Your task to perform on an android device: open a bookmark in the chrome app Image 0: 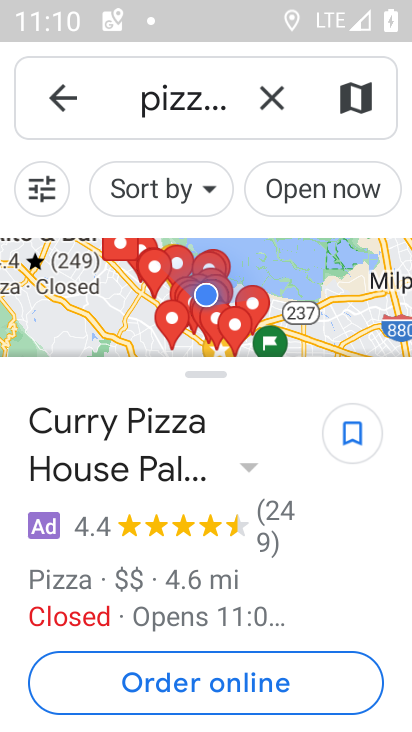
Step 0: press home button
Your task to perform on an android device: open a bookmark in the chrome app Image 1: 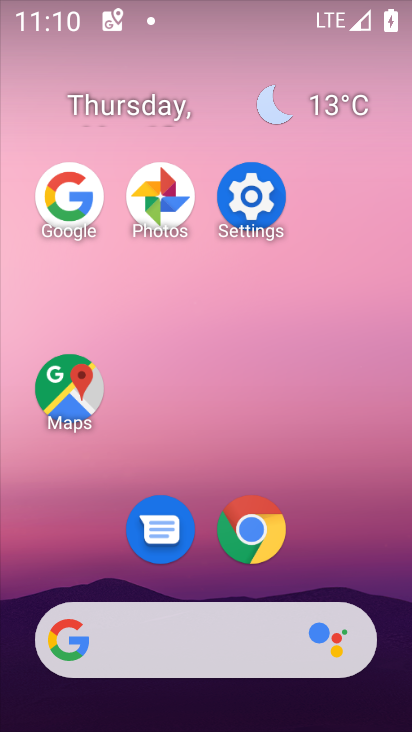
Step 1: click (244, 515)
Your task to perform on an android device: open a bookmark in the chrome app Image 2: 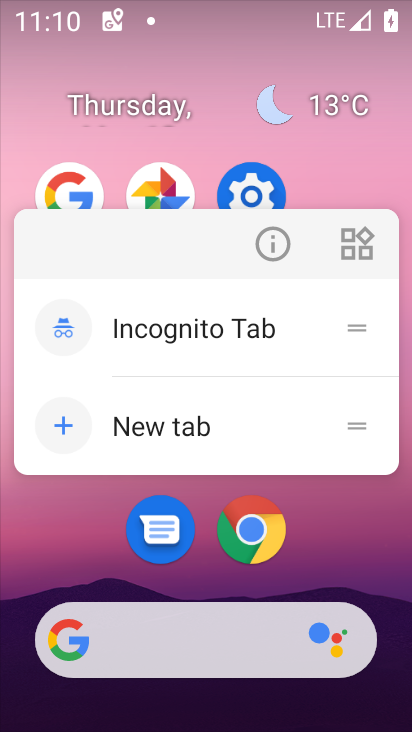
Step 2: click (254, 536)
Your task to perform on an android device: open a bookmark in the chrome app Image 3: 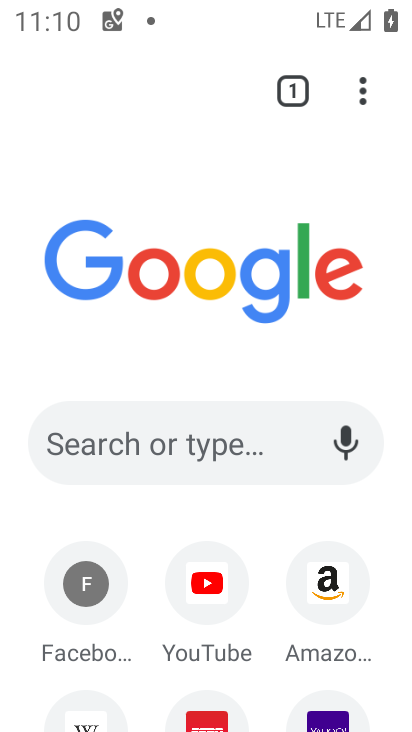
Step 3: click (371, 76)
Your task to perform on an android device: open a bookmark in the chrome app Image 4: 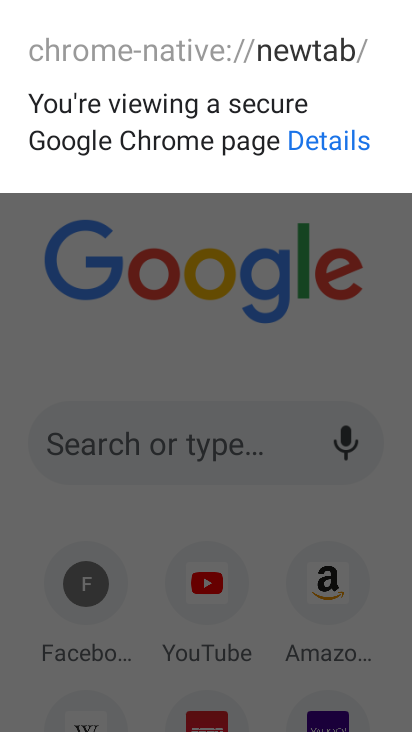
Step 4: click (392, 299)
Your task to perform on an android device: open a bookmark in the chrome app Image 5: 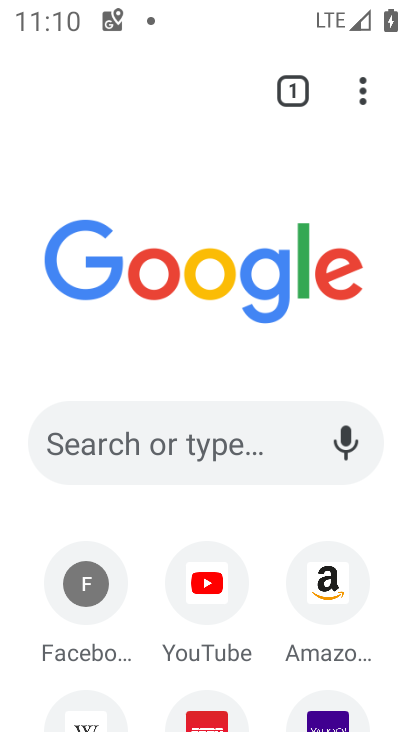
Step 5: click (351, 90)
Your task to perform on an android device: open a bookmark in the chrome app Image 6: 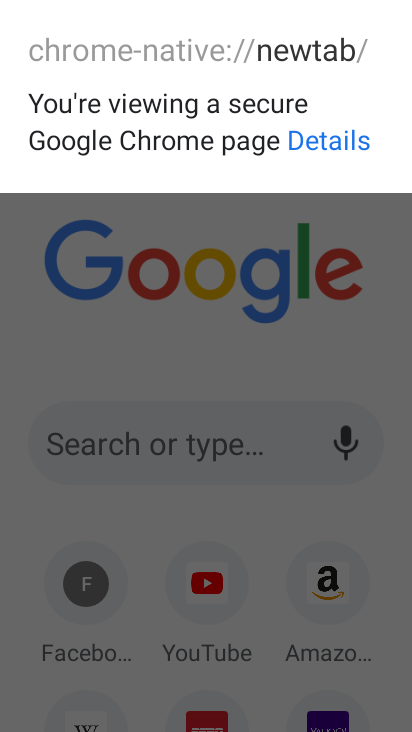
Step 6: click (351, 305)
Your task to perform on an android device: open a bookmark in the chrome app Image 7: 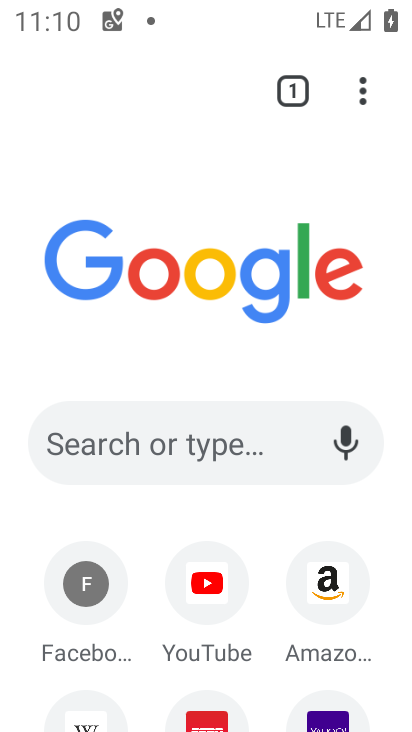
Step 7: click (374, 95)
Your task to perform on an android device: open a bookmark in the chrome app Image 8: 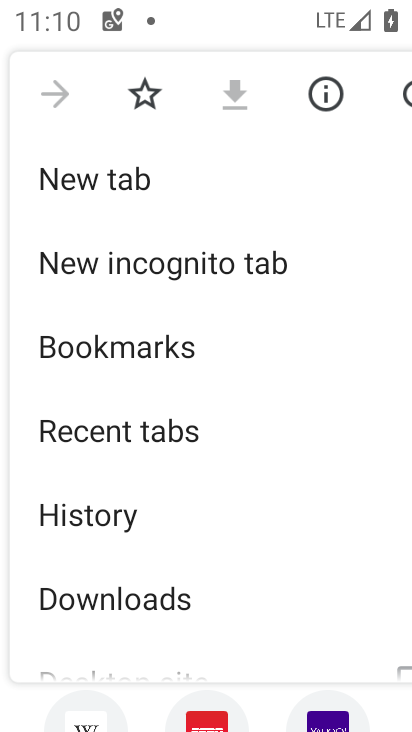
Step 8: click (161, 342)
Your task to perform on an android device: open a bookmark in the chrome app Image 9: 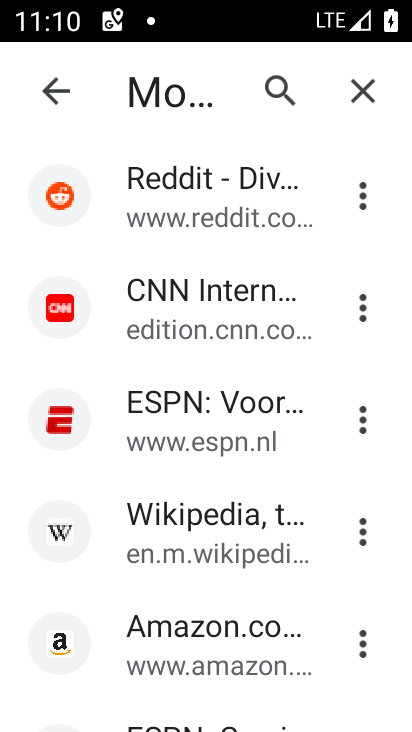
Step 9: task complete